Your task to perform on an android device: empty trash in google photos Image 0: 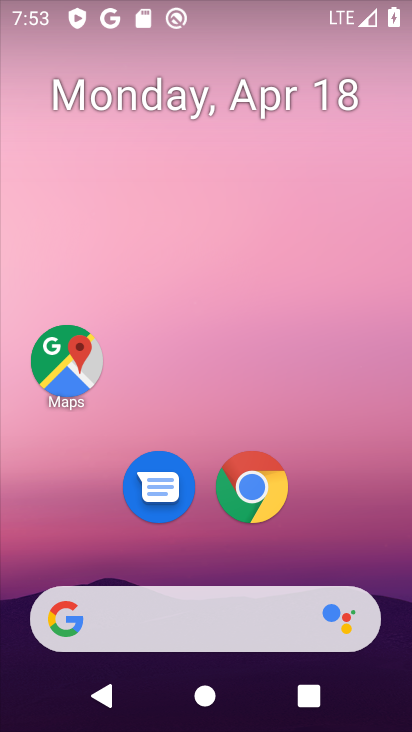
Step 0: drag from (207, 723) to (218, 45)
Your task to perform on an android device: empty trash in google photos Image 1: 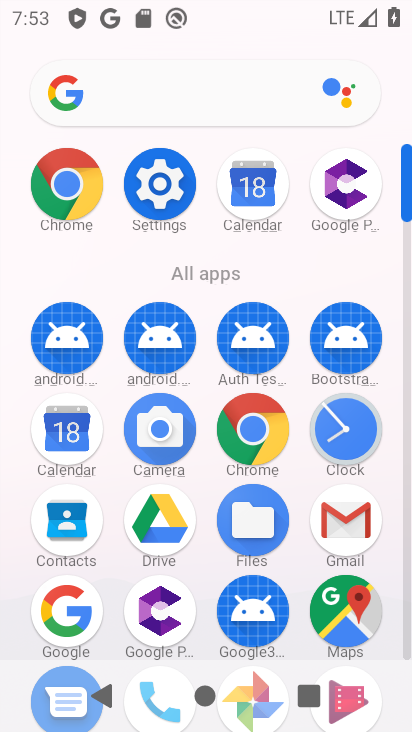
Step 1: drag from (210, 621) to (210, 195)
Your task to perform on an android device: empty trash in google photos Image 2: 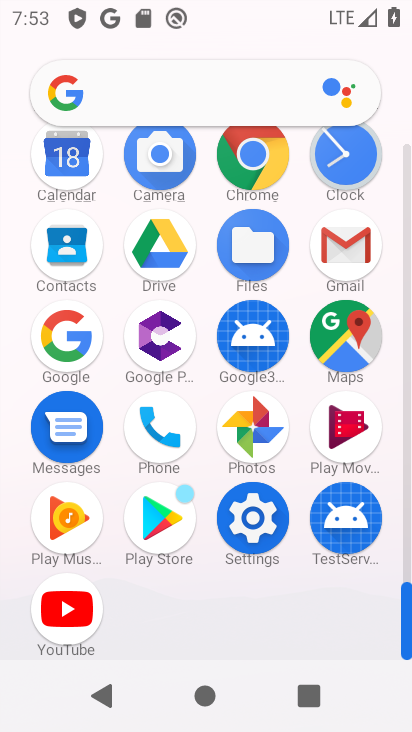
Step 2: click (256, 428)
Your task to perform on an android device: empty trash in google photos Image 3: 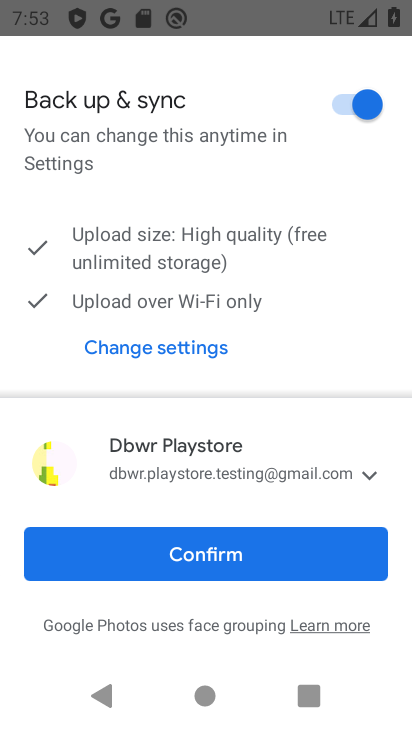
Step 3: click (207, 553)
Your task to perform on an android device: empty trash in google photos Image 4: 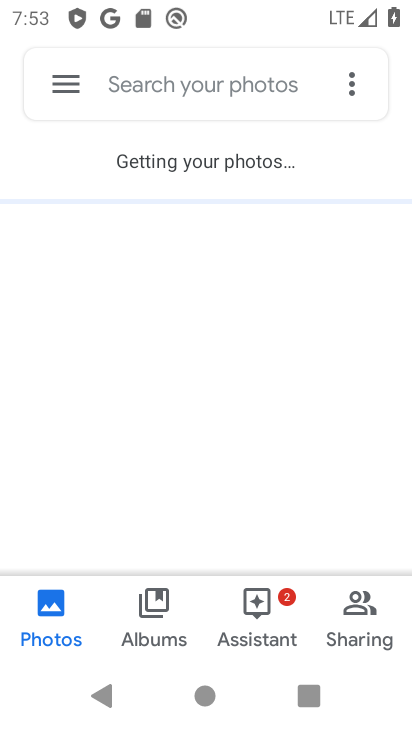
Step 4: click (73, 78)
Your task to perform on an android device: empty trash in google photos Image 5: 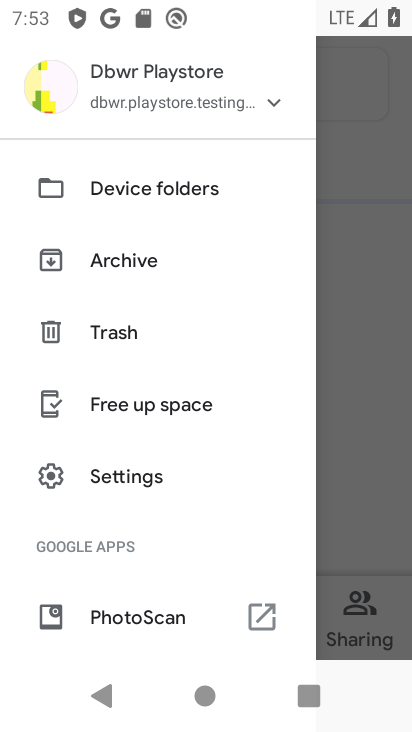
Step 5: click (110, 331)
Your task to perform on an android device: empty trash in google photos Image 6: 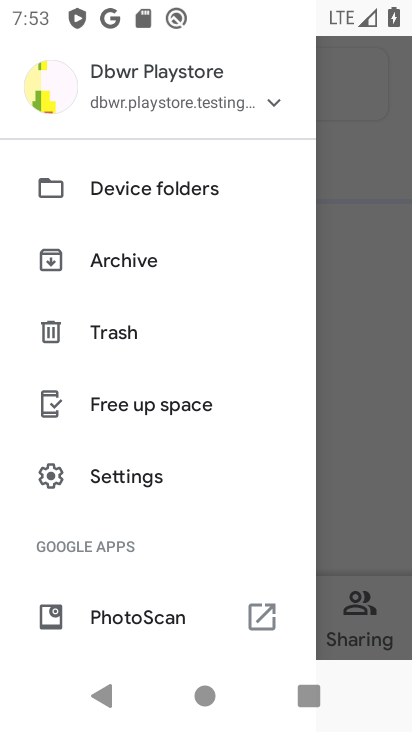
Step 6: click (110, 327)
Your task to perform on an android device: empty trash in google photos Image 7: 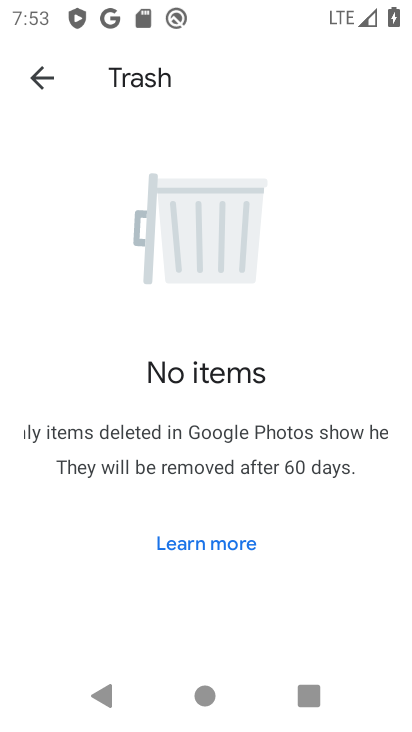
Step 7: task complete